Your task to perform on an android device: empty trash in the gmail app Image 0: 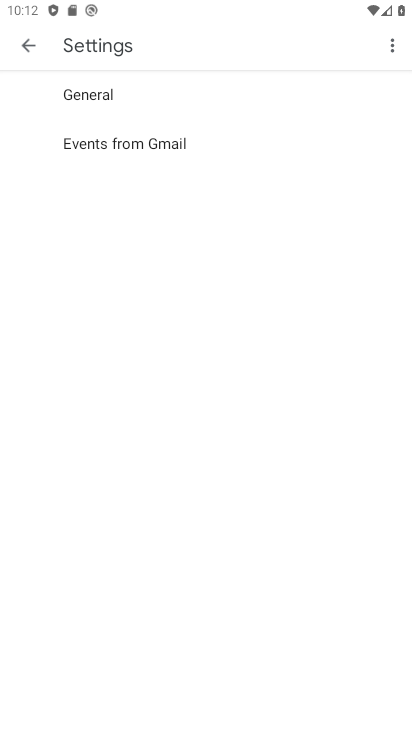
Step 0: press home button
Your task to perform on an android device: empty trash in the gmail app Image 1: 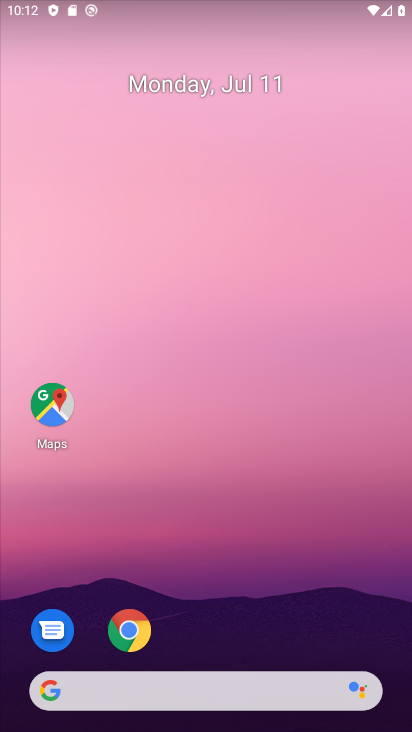
Step 1: drag from (188, 609) to (216, 177)
Your task to perform on an android device: empty trash in the gmail app Image 2: 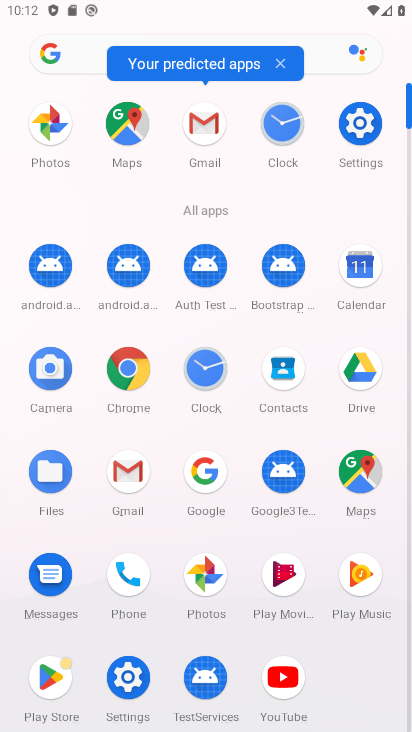
Step 2: click (228, 116)
Your task to perform on an android device: empty trash in the gmail app Image 3: 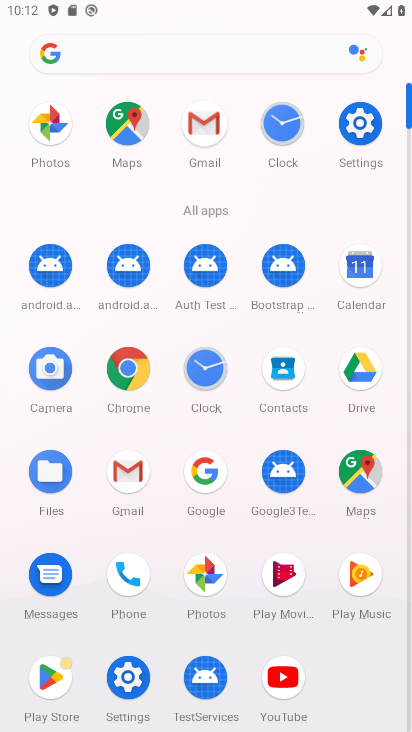
Step 3: click (204, 114)
Your task to perform on an android device: empty trash in the gmail app Image 4: 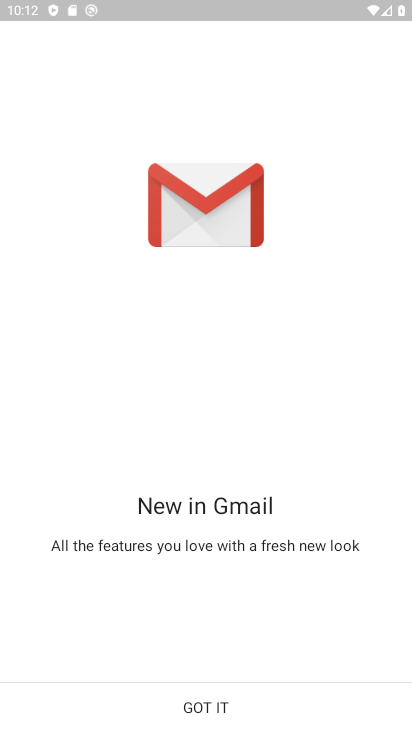
Step 4: click (196, 698)
Your task to perform on an android device: empty trash in the gmail app Image 5: 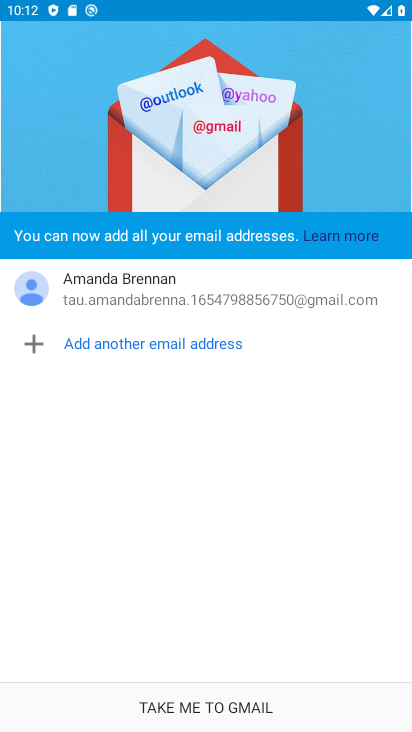
Step 5: click (196, 698)
Your task to perform on an android device: empty trash in the gmail app Image 6: 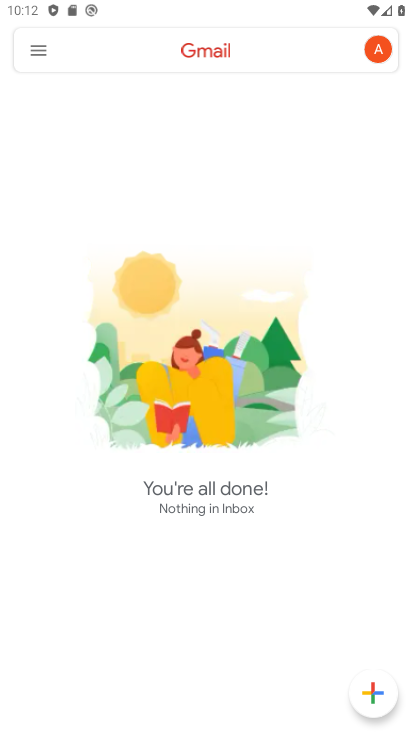
Step 6: click (43, 43)
Your task to perform on an android device: empty trash in the gmail app Image 7: 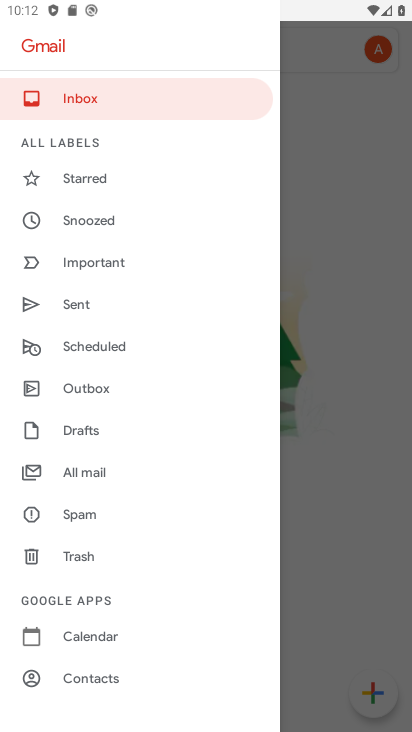
Step 7: click (90, 553)
Your task to perform on an android device: empty trash in the gmail app Image 8: 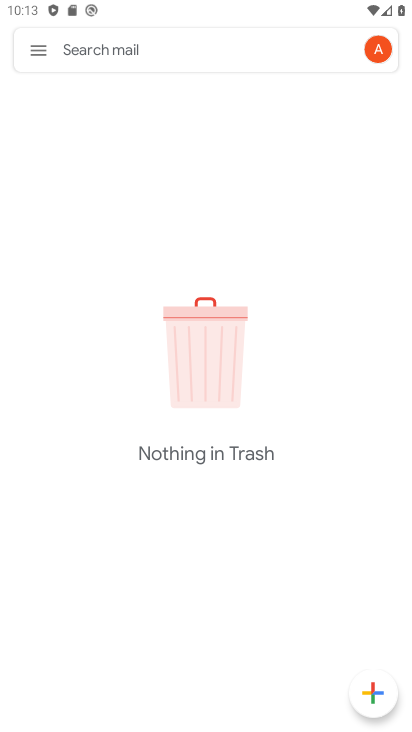
Step 8: click (90, 553)
Your task to perform on an android device: empty trash in the gmail app Image 9: 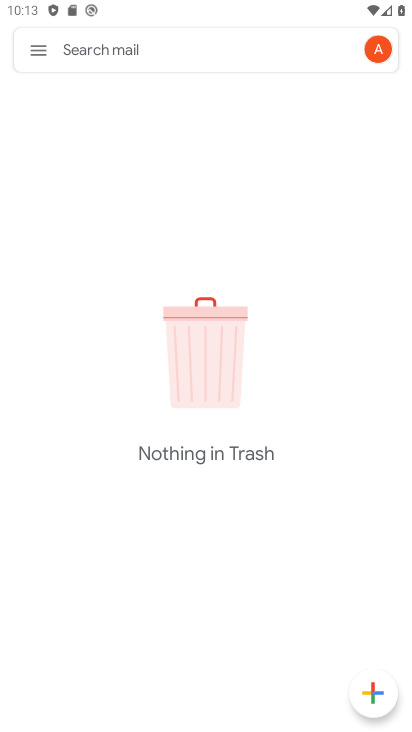
Step 9: task complete